Your task to perform on an android device: turn off notifications in google photos Image 0: 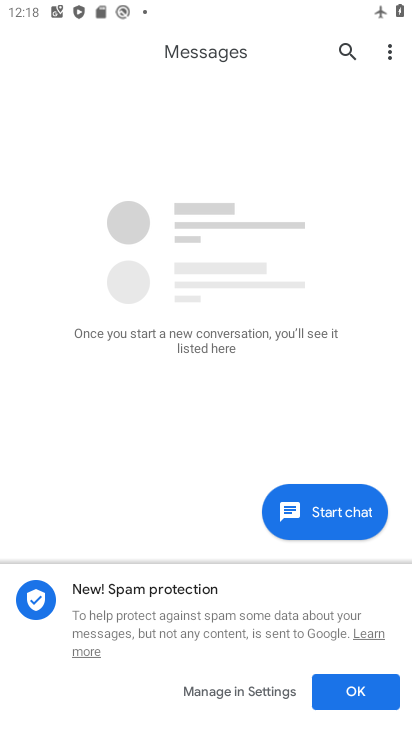
Step 0: press home button
Your task to perform on an android device: turn off notifications in google photos Image 1: 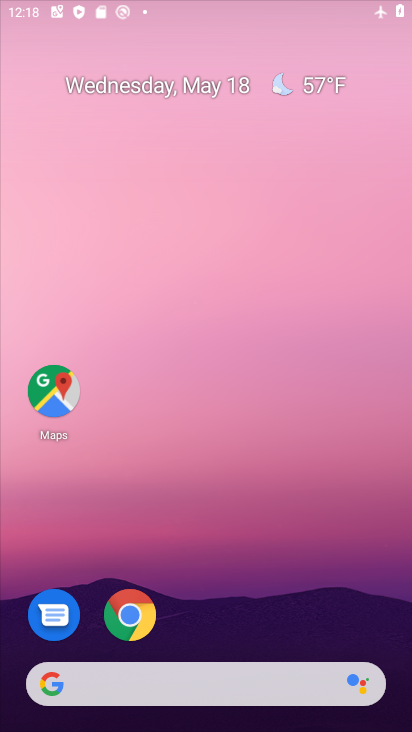
Step 1: drag from (380, 607) to (290, 54)
Your task to perform on an android device: turn off notifications in google photos Image 2: 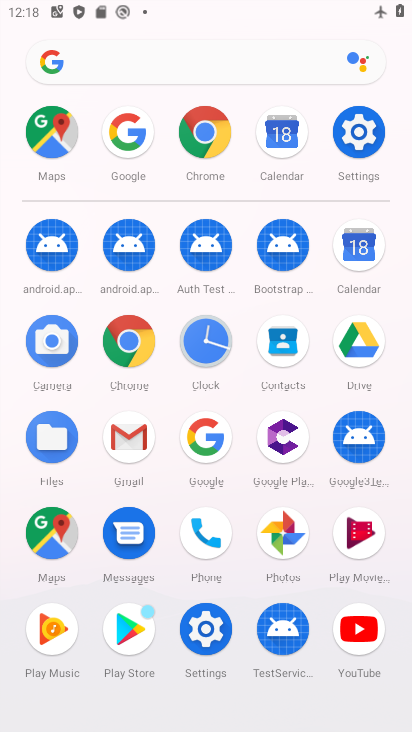
Step 2: click (293, 550)
Your task to perform on an android device: turn off notifications in google photos Image 3: 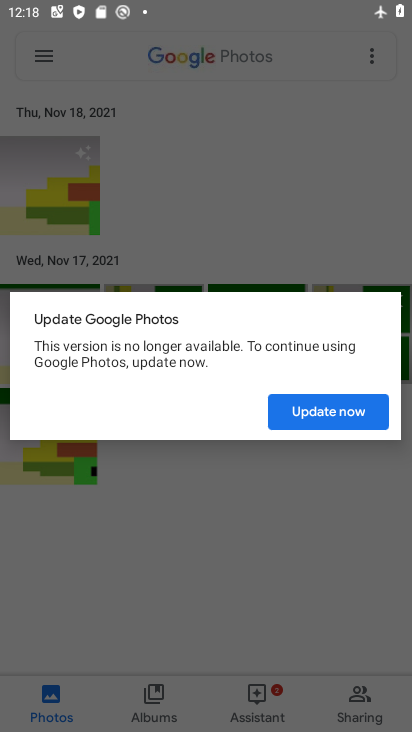
Step 3: click (297, 420)
Your task to perform on an android device: turn off notifications in google photos Image 4: 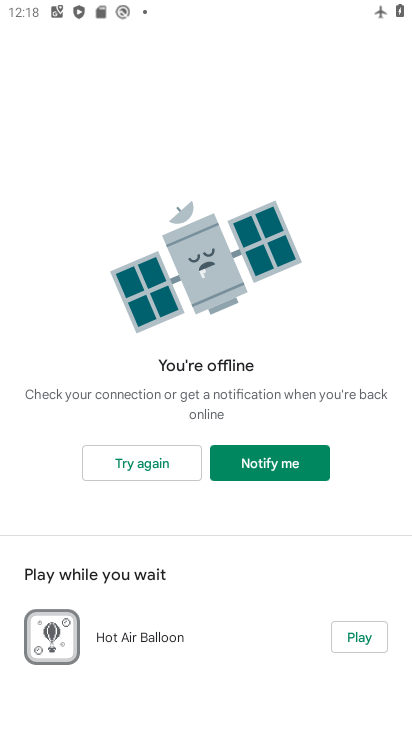
Step 4: task complete